Your task to perform on an android device: change keyboard looks Image 0: 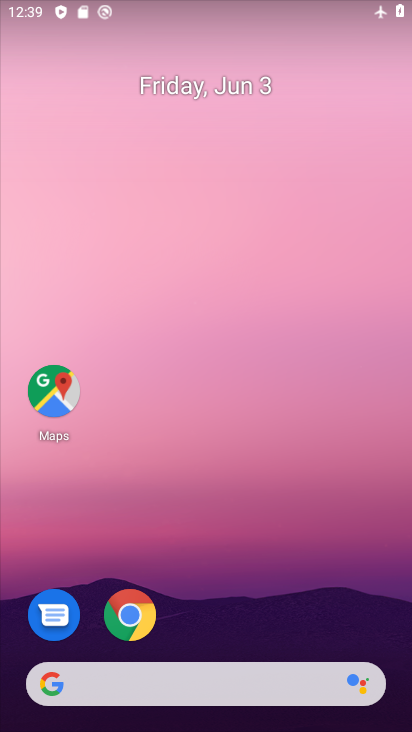
Step 0: drag from (249, 97) to (306, 9)
Your task to perform on an android device: change keyboard looks Image 1: 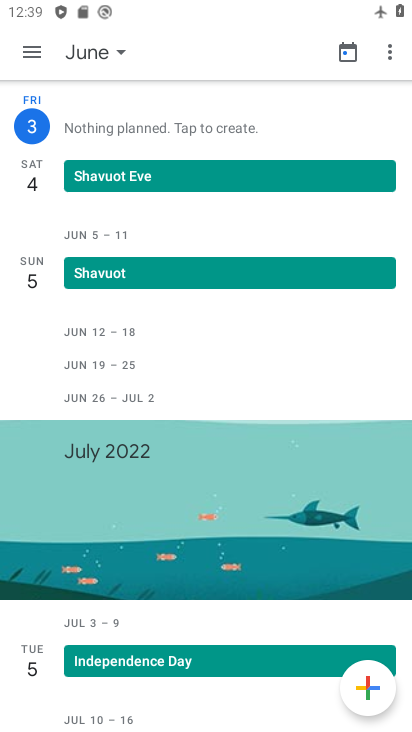
Step 1: press home button
Your task to perform on an android device: change keyboard looks Image 2: 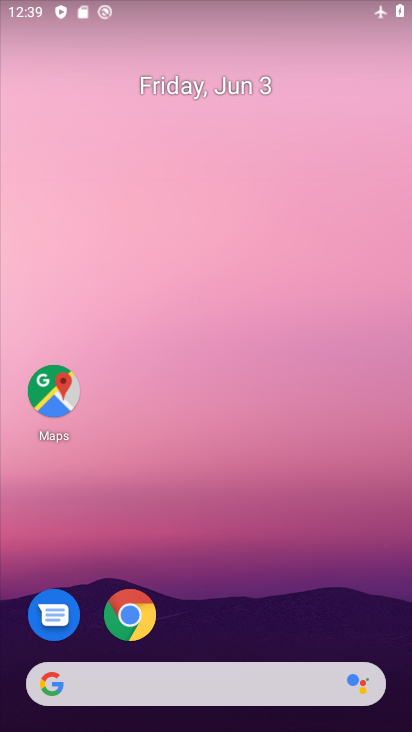
Step 2: drag from (213, 624) to (254, 8)
Your task to perform on an android device: change keyboard looks Image 3: 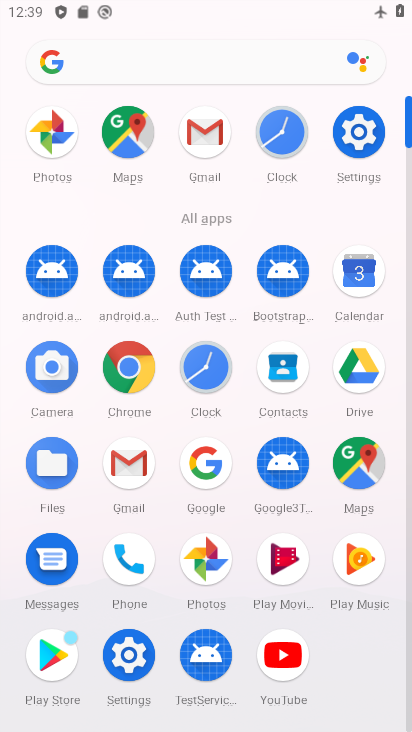
Step 3: click (362, 129)
Your task to perform on an android device: change keyboard looks Image 4: 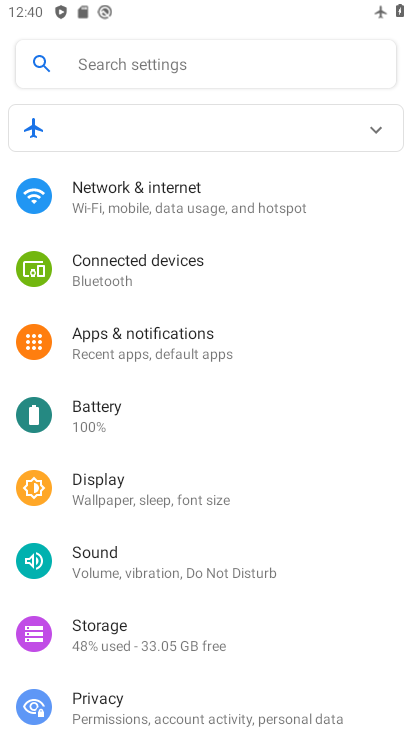
Step 4: drag from (150, 613) to (199, 371)
Your task to perform on an android device: change keyboard looks Image 5: 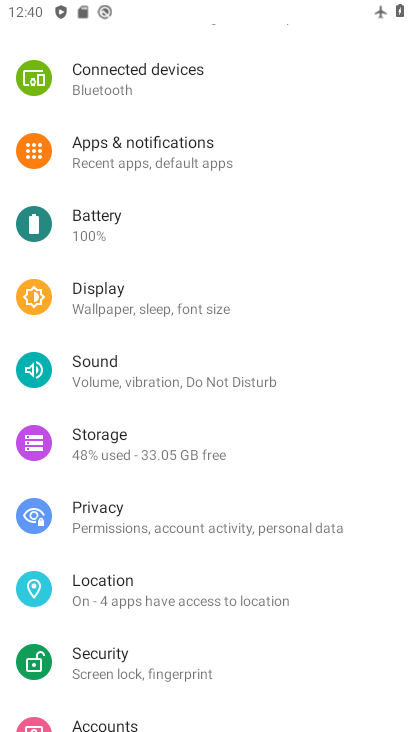
Step 5: drag from (148, 686) to (211, 196)
Your task to perform on an android device: change keyboard looks Image 6: 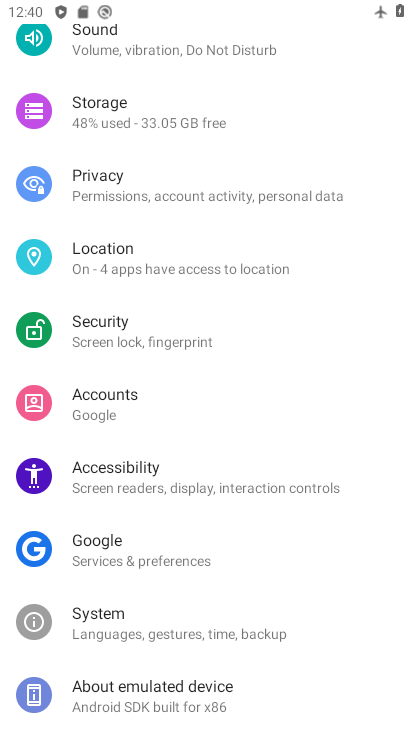
Step 6: drag from (193, 527) to (250, 192)
Your task to perform on an android device: change keyboard looks Image 7: 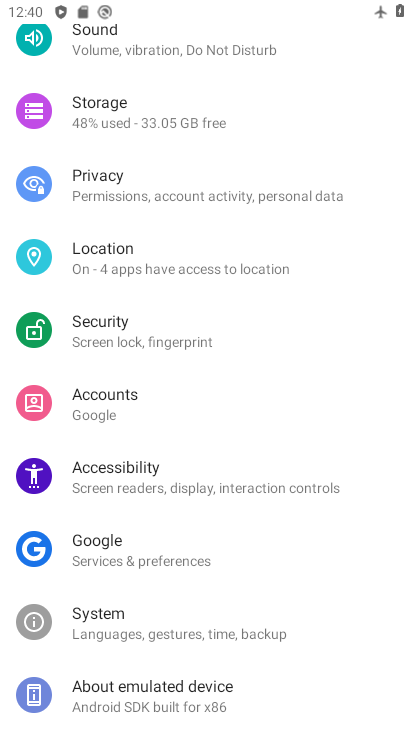
Step 7: click (130, 633)
Your task to perform on an android device: change keyboard looks Image 8: 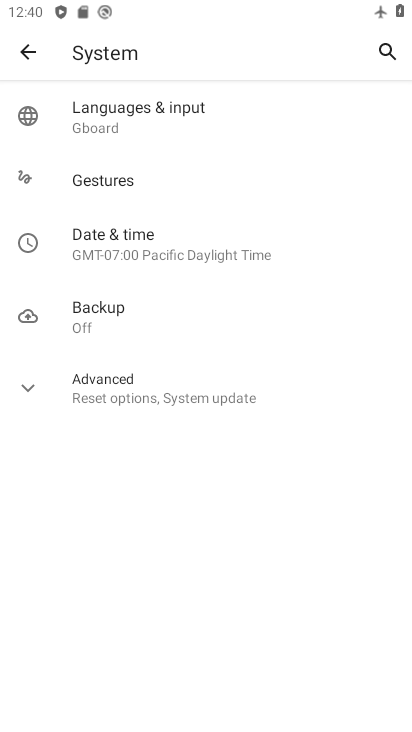
Step 8: click (116, 117)
Your task to perform on an android device: change keyboard looks Image 9: 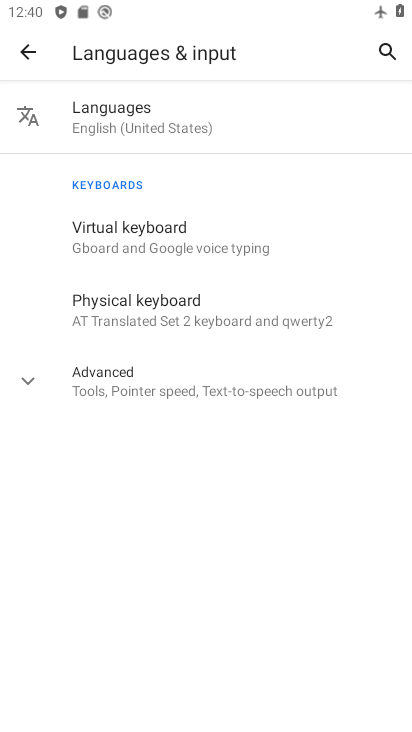
Step 9: click (130, 243)
Your task to perform on an android device: change keyboard looks Image 10: 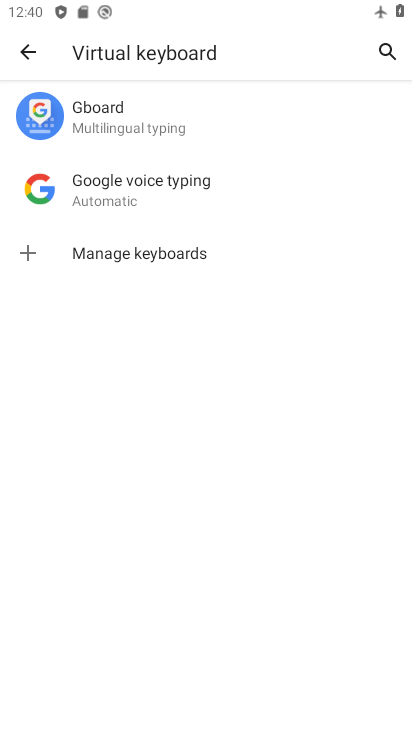
Step 10: click (109, 119)
Your task to perform on an android device: change keyboard looks Image 11: 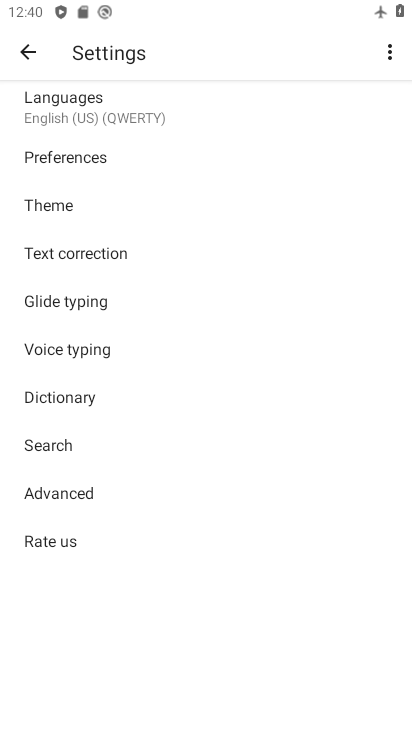
Step 11: click (67, 203)
Your task to perform on an android device: change keyboard looks Image 12: 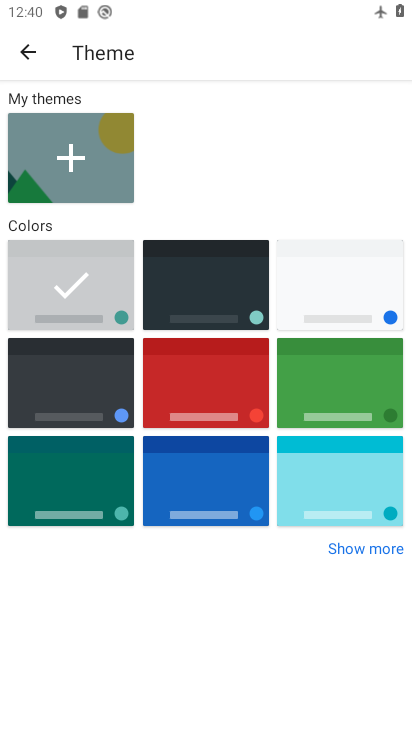
Step 12: click (187, 288)
Your task to perform on an android device: change keyboard looks Image 13: 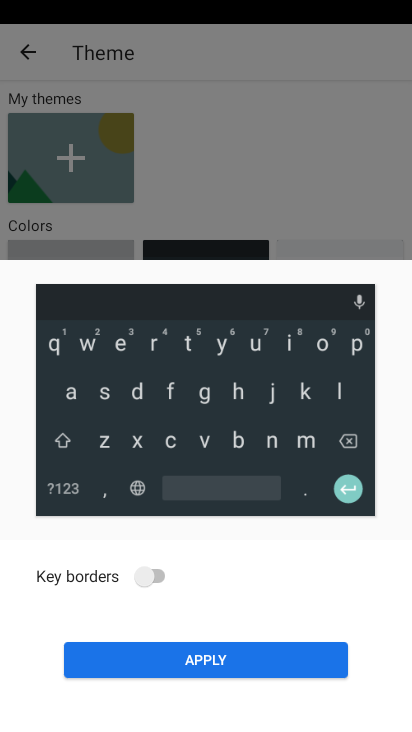
Step 13: click (218, 676)
Your task to perform on an android device: change keyboard looks Image 14: 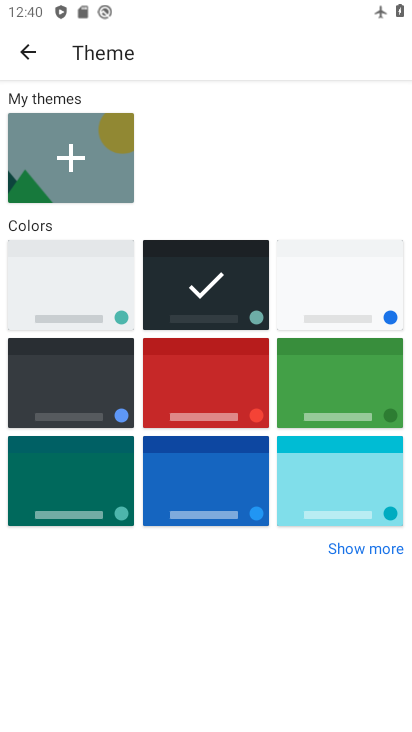
Step 14: task complete